Your task to perform on an android device: uninstall "YouTube Kids" Image 0: 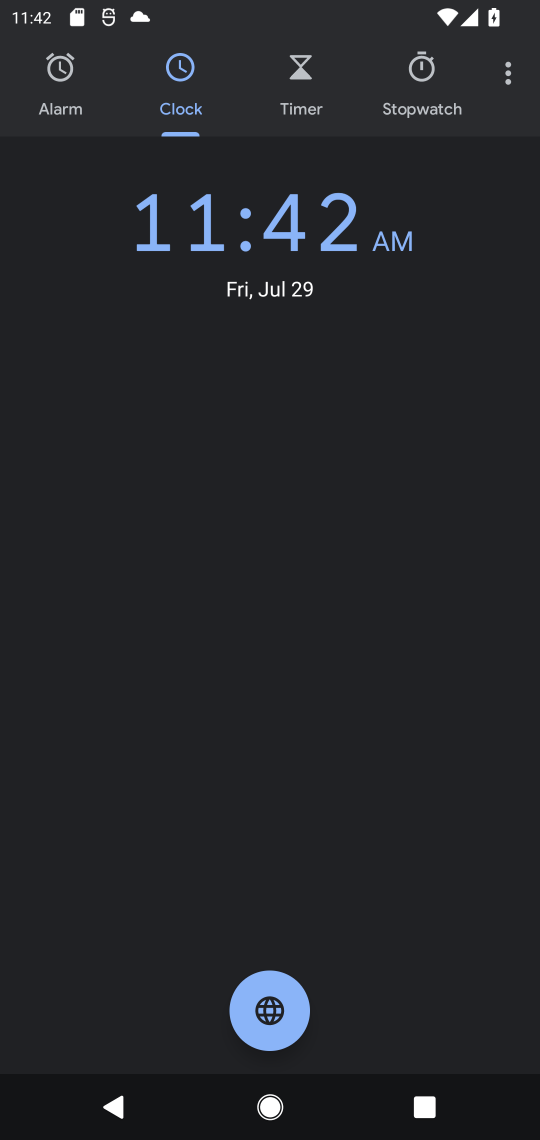
Step 0: press home button
Your task to perform on an android device: uninstall "YouTube Kids" Image 1: 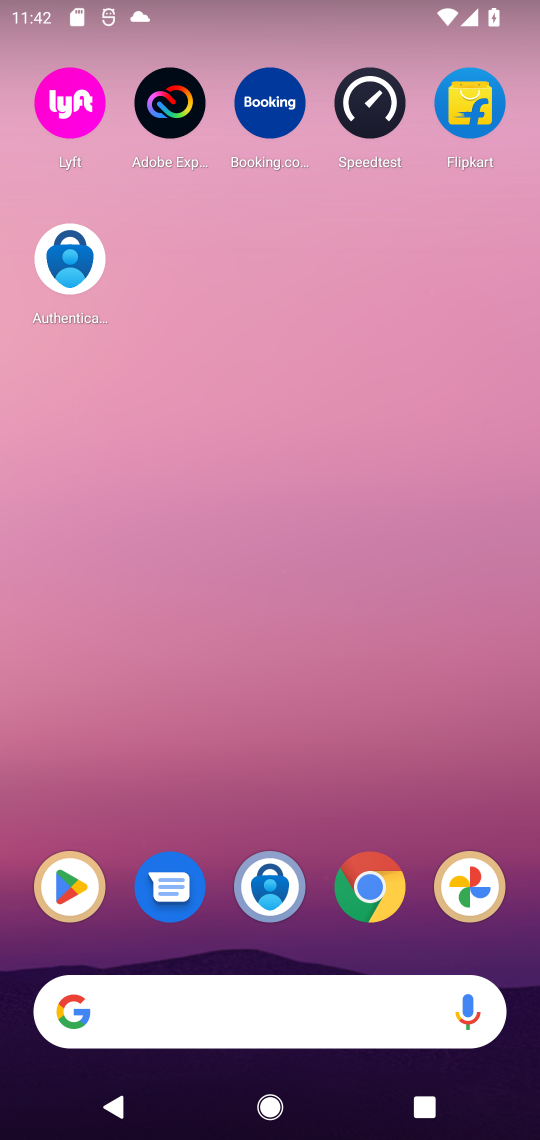
Step 1: drag from (174, 1019) to (271, 84)
Your task to perform on an android device: uninstall "YouTube Kids" Image 2: 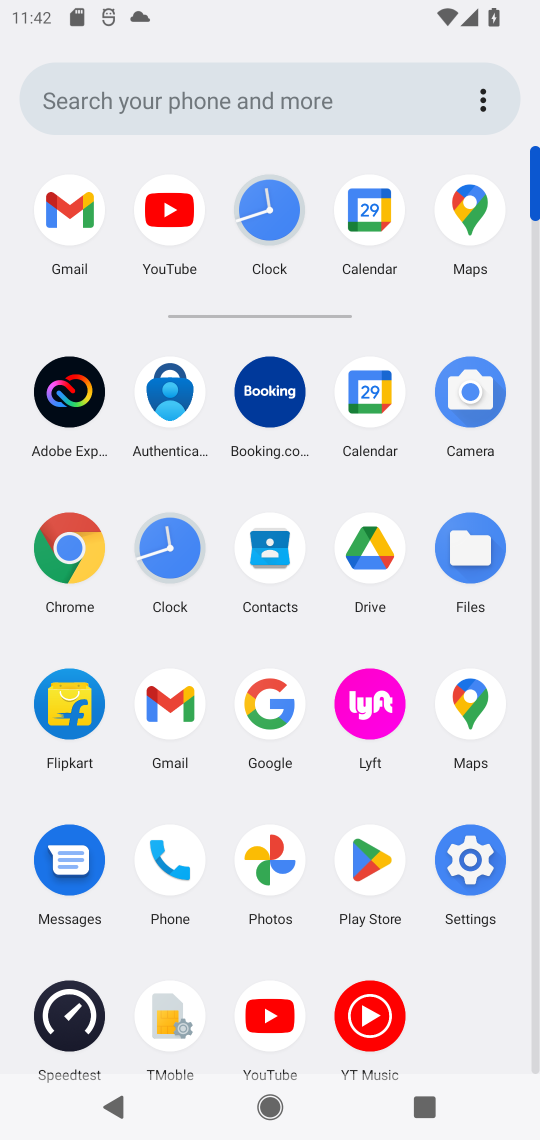
Step 2: drag from (152, 909) to (185, 650)
Your task to perform on an android device: uninstall "YouTube Kids" Image 3: 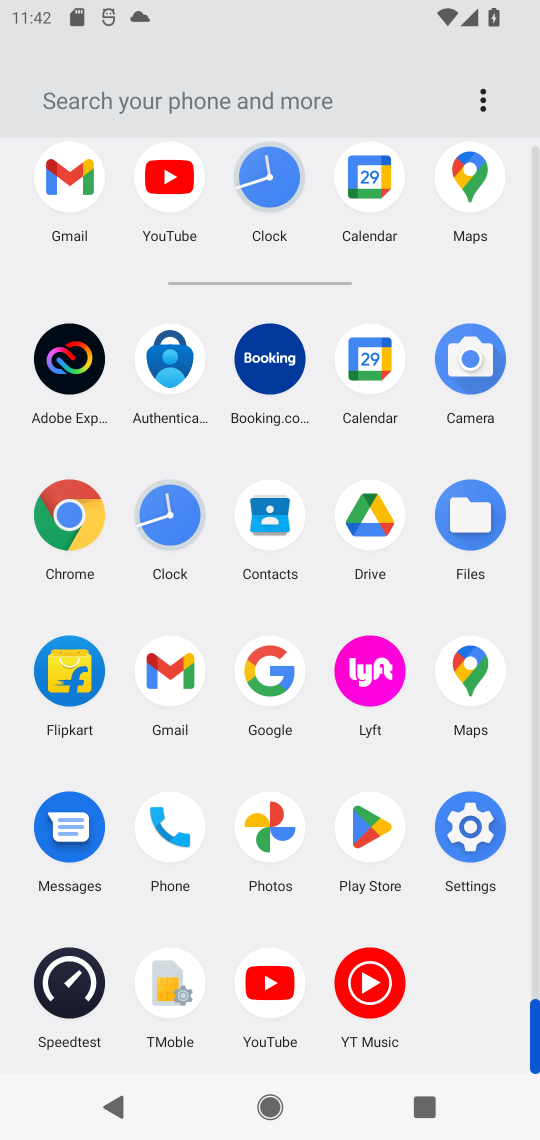
Step 3: click (368, 831)
Your task to perform on an android device: uninstall "YouTube Kids" Image 4: 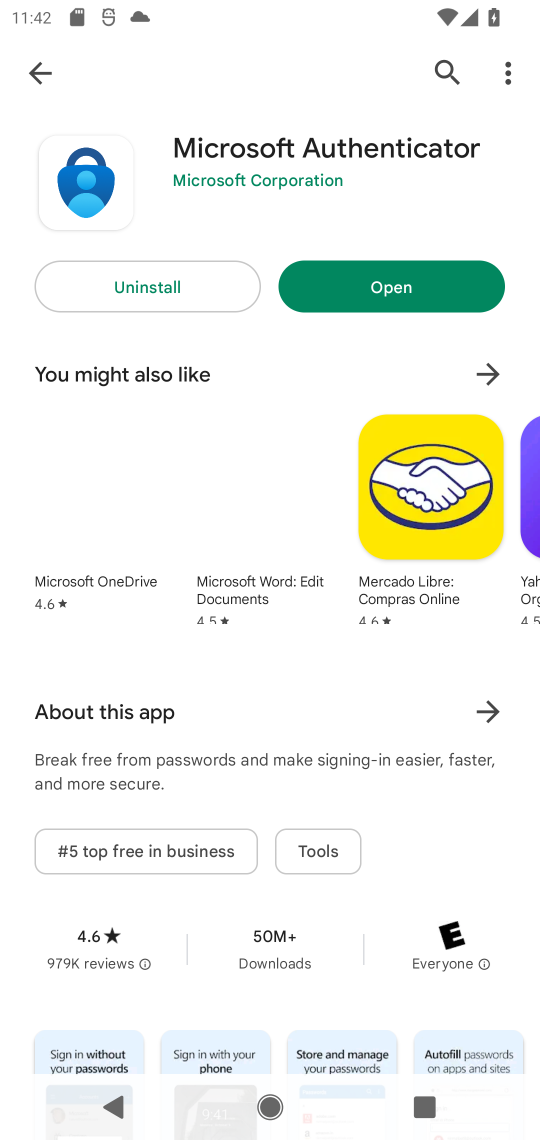
Step 4: click (438, 67)
Your task to perform on an android device: uninstall "YouTube Kids" Image 5: 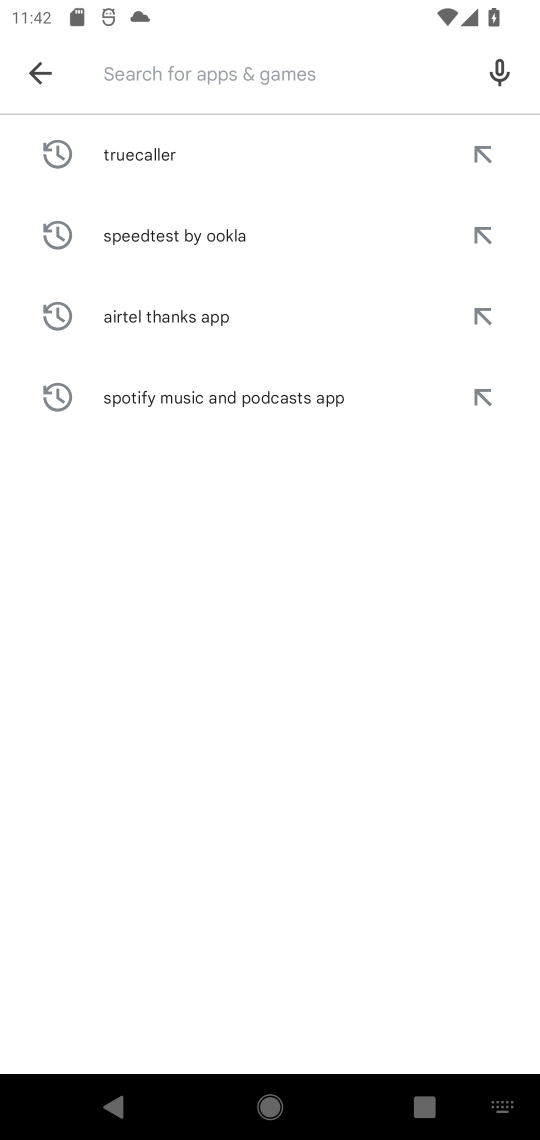
Step 5: click (403, 77)
Your task to perform on an android device: uninstall "YouTube Kids" Image 6: 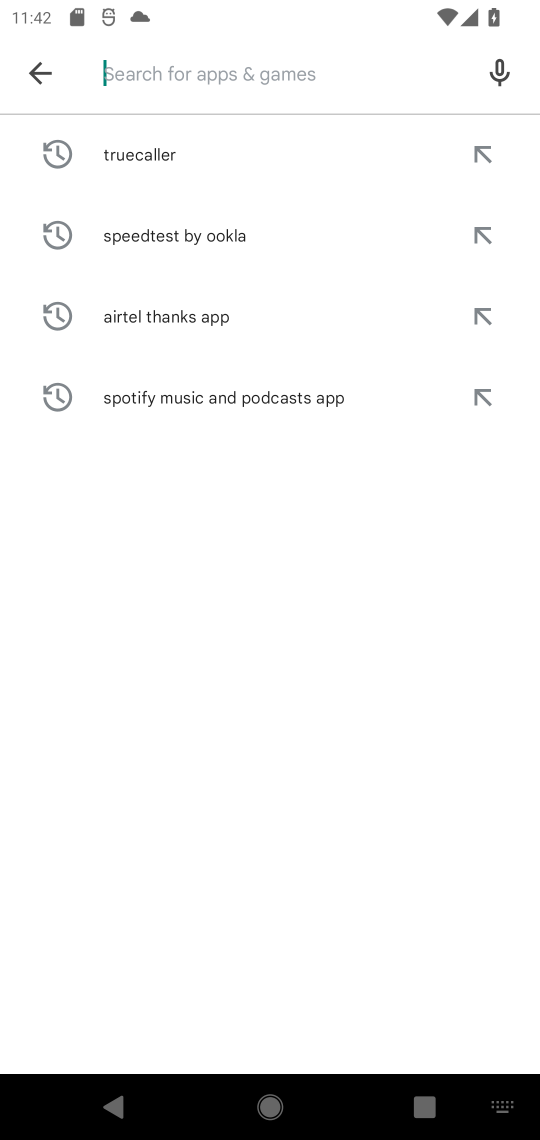
Step 6: type "YouTube Kids"
Your task to perform on an android device: uninstall "YouTube Kids" Image 7: 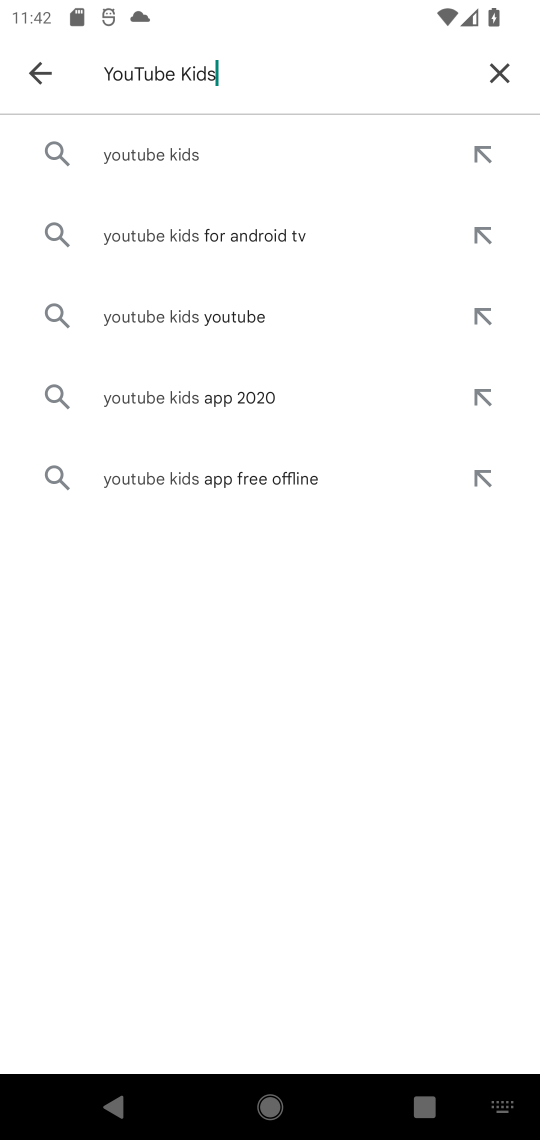
Step 7: click (180, 153)
Your task to perform on an android device: uninstall "YouTube Kids" Image 8: 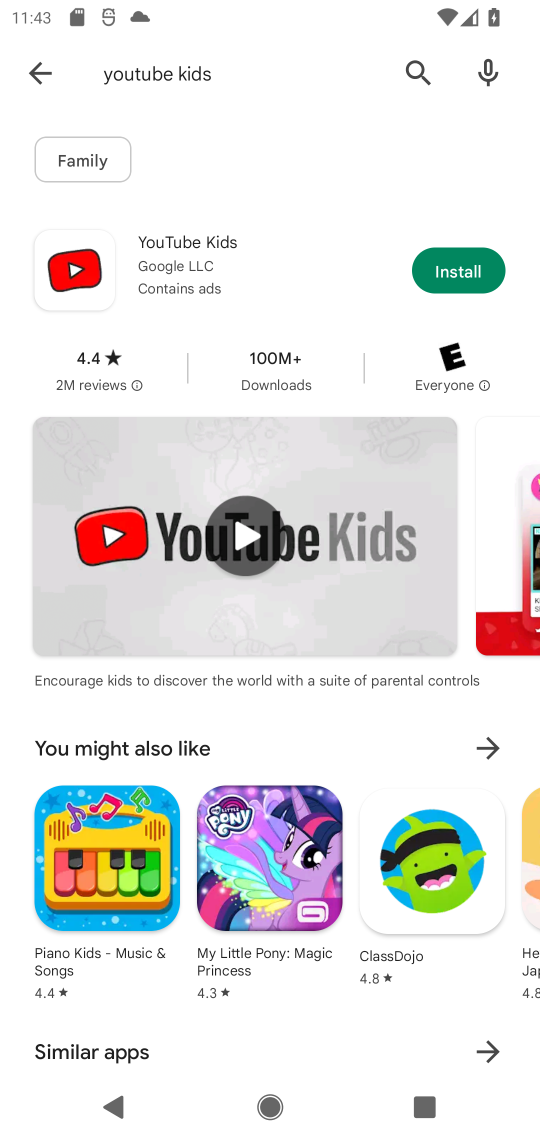
Step 8: task complete